Your task to perform on an android device: install app "DoorDash - Dasher" Image 0: 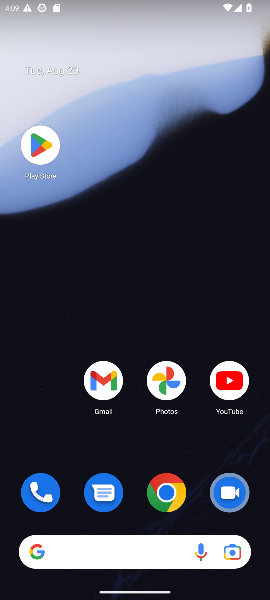
Step 0: click (44, 139)
Your task to perform on an android device: install app "DoorDash - Dasher" Image 1: 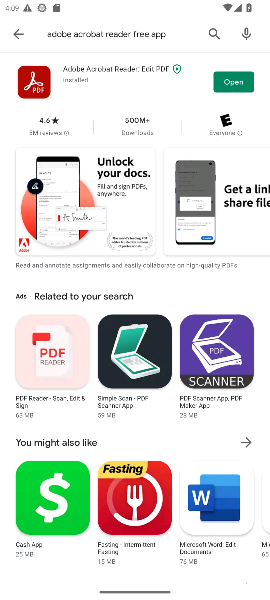
Step 1: click (220, 35)
Your task to perform on an android device: install app "DoorDash - Dasher" Image 2: 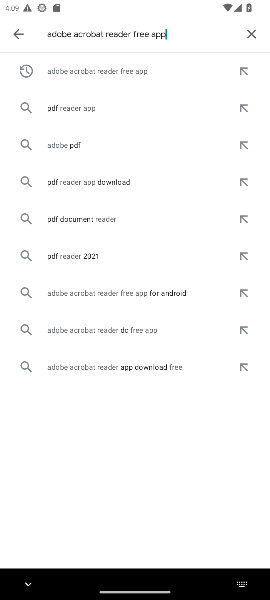
Step 2: click (258, 39)
Your task to perform on an android device: install app "DoorDash - Dasher" Image 3: 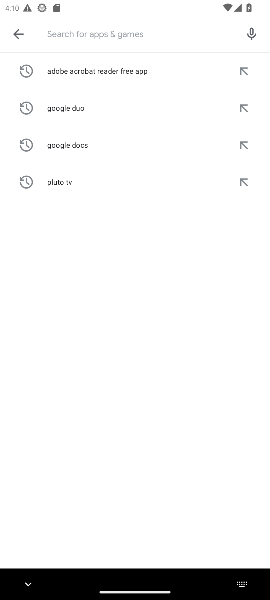
Step 3: type "door dash"
Your task to perform on an android device: install app "DoorDash - Dasher" Image 4: 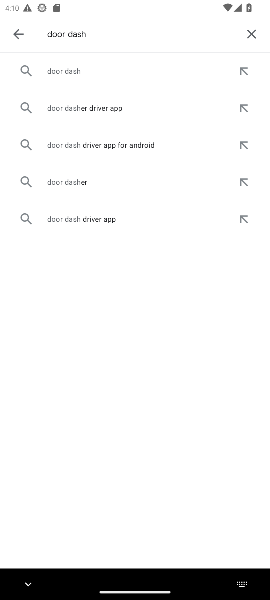
Step 4: click (109, 59)
Your task to perform on an android device: install app "DoorDash - Dasher" Image 5: 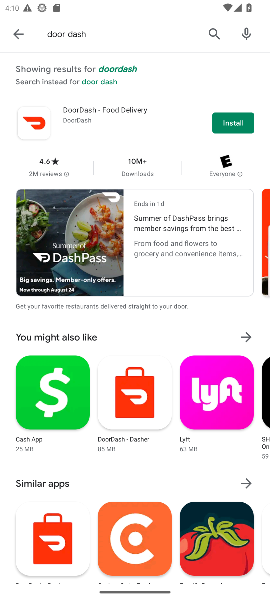
Step 5: click (229, 125)
Your task to perform on an android device: install app "DoorDash - Dasher" Image 6: 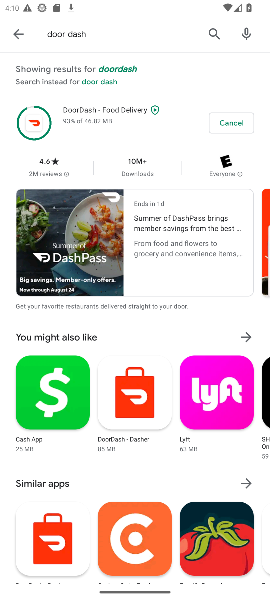
Step 6: task complete